Your task to perform on an android device: refresh tabs in the chrome app Image 0: 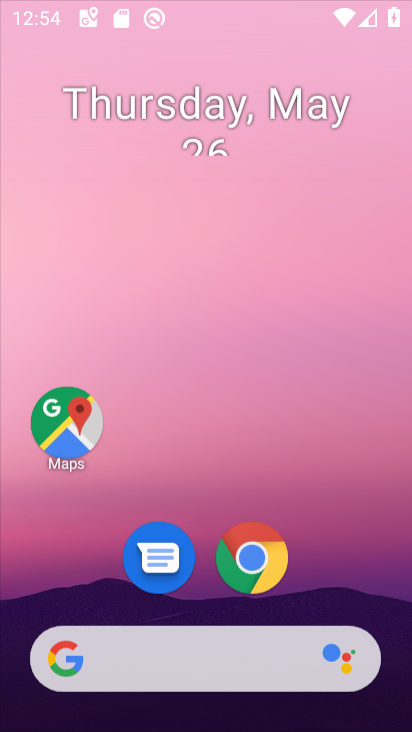
Step 0: press home button
Your task to perform on an android device: refresh tabs in the chrome app Image 1: 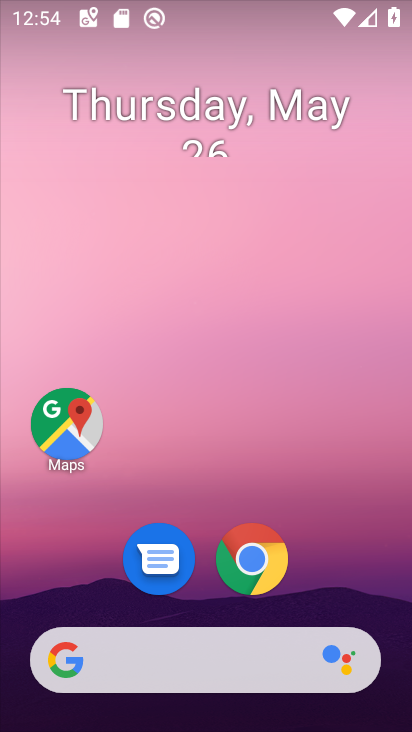
Step 1: click (243, 556)
Your task to perform on an android device: refresh tabs in the chrome app Image 2: 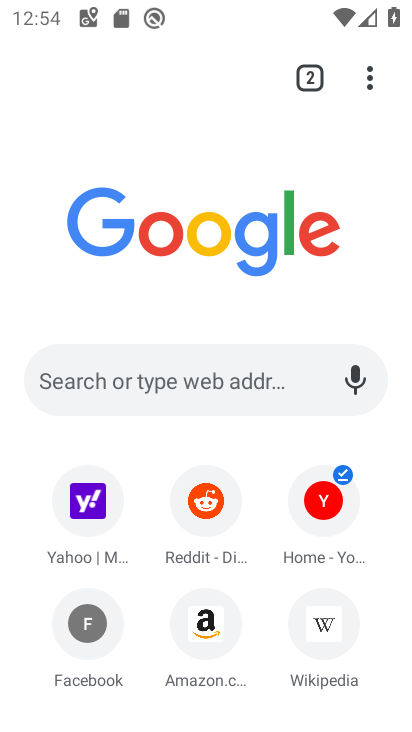
Step 2: click (370, 72)
Your task to perform on an android device: refresh tabs in the chrome app Image 3: 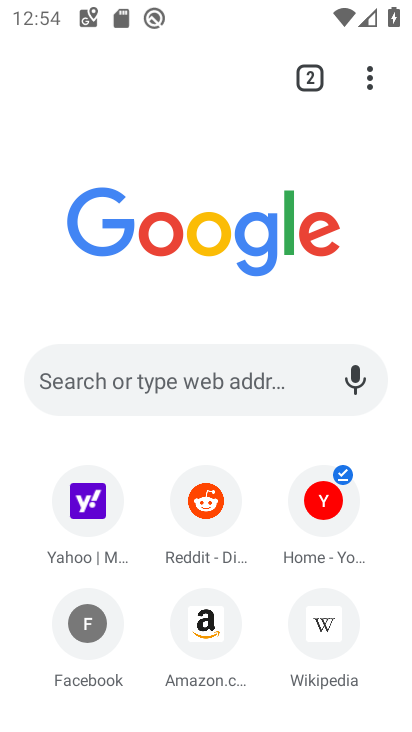
Step 3: click (365, 78)
Your task to perform on an android device: refresh tabs in the chrome app Image 4: 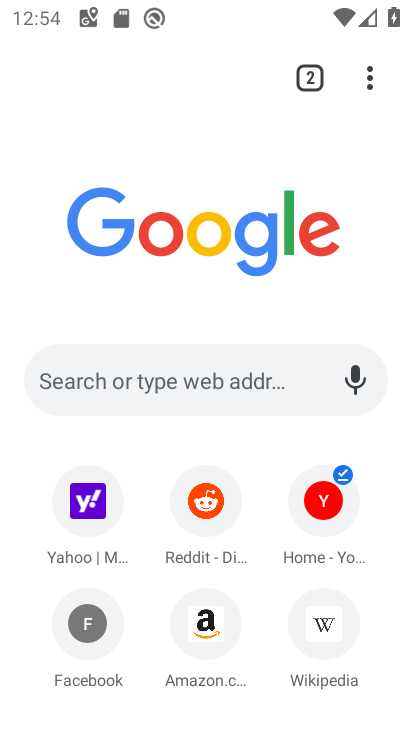
Step 4: task complete